Your task to perform on an android device: What is the news today? Image 0: 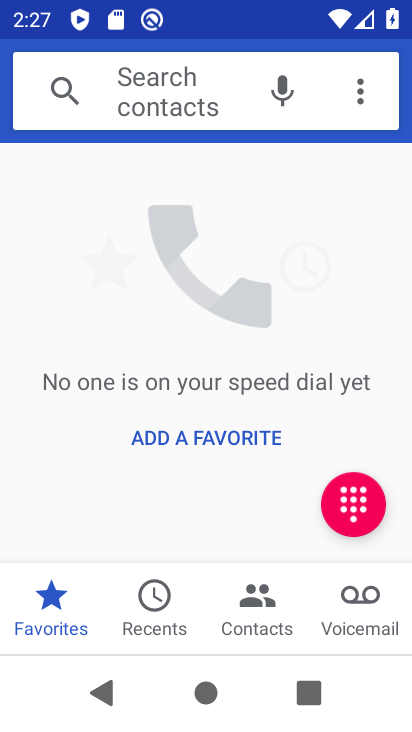
Step 0: press home button
Your task to perform on an android device: What is the news today? Image 1: 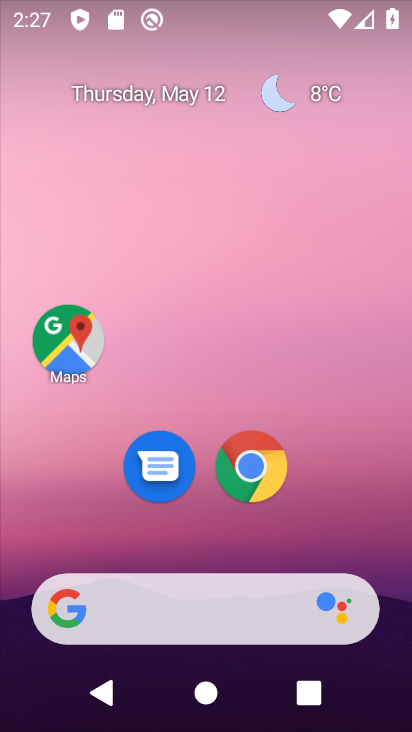
Step 1: task complete